Your task to perform on an android device: delete browsing data in the chrome app Image 0: 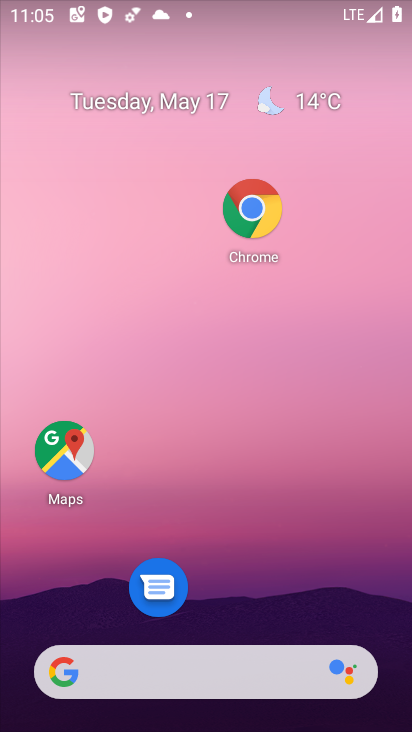
Step 0: click (255, 206)
Your task to perform on an android device: delete browsing data in the chrome app Image 1: 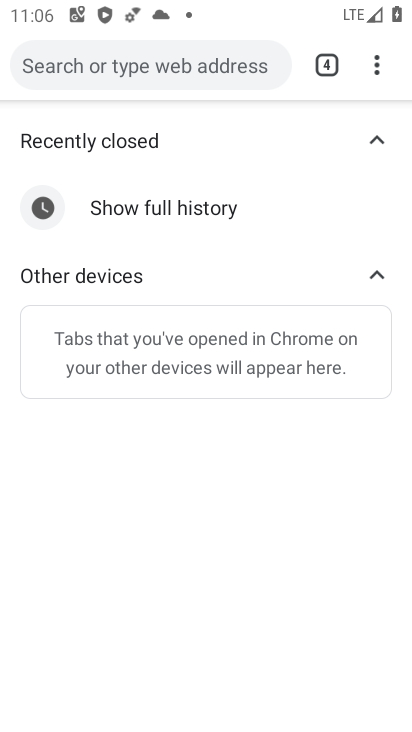
Step 1: click (378, 54)
Your task to perform on an android device: delete browsing data in the chrome app Image 2: 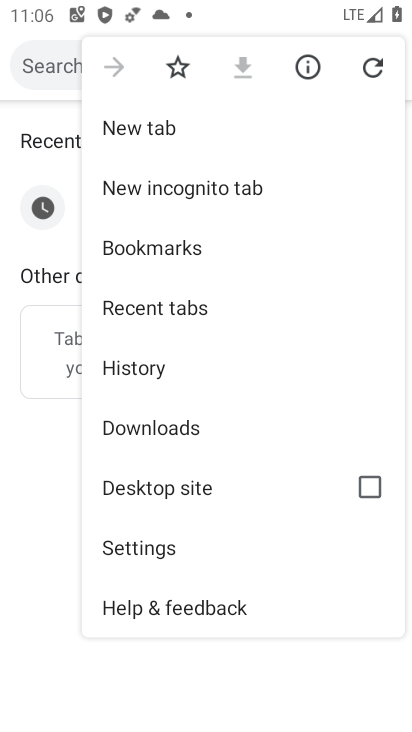
Step 2: click (165, 367)
Your task to perform on an android device: delete browsing data in the chrome app Image 3: 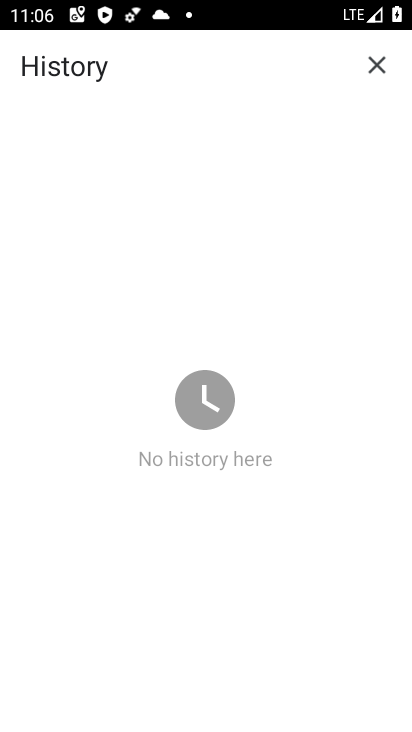
Step 3: task complete